Your task to perform on an android device: turn notification dots on Image 0: 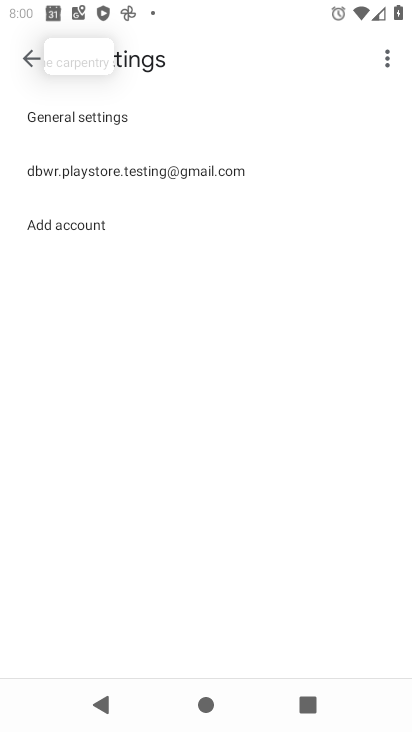
Step 0: press home button
Your task to perform on an android device: turn notification dots on Image 1: 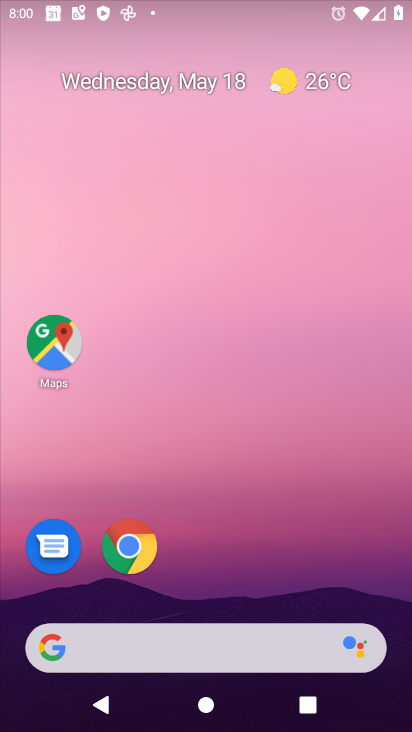
Step 1: drag from (378, 606) to (229, 22)
Your task to perform on an android device: turn notification dots on Image 2: 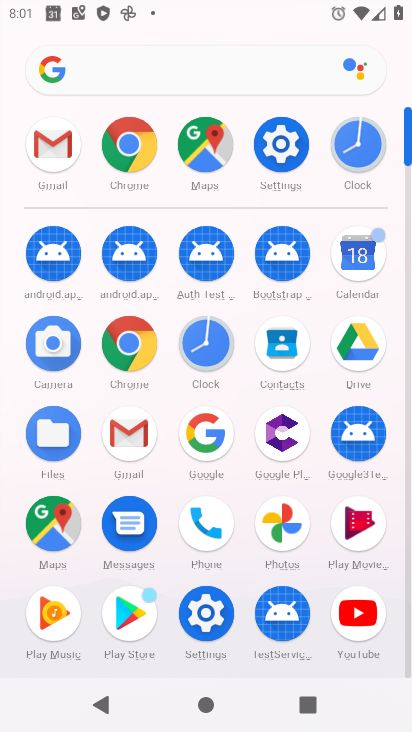
Step 2: click (269, 126)
Your task to perform on an android device: turn notification dots on Image 3: 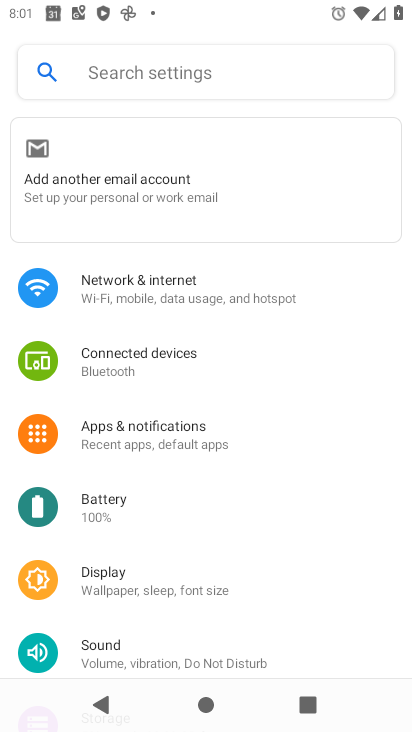
Step 3: click (221, 438)
Your task to perform on an android device: turn notification dots on Image 4: 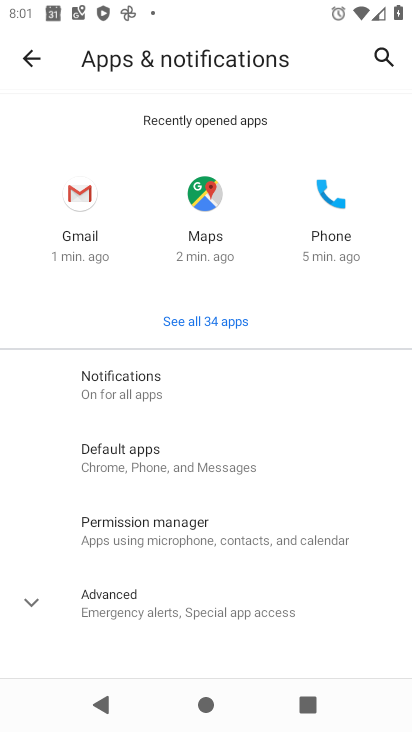
Step 4: click (151, 393)
Your task to perform on an android device: turn notification dots on Image 5: 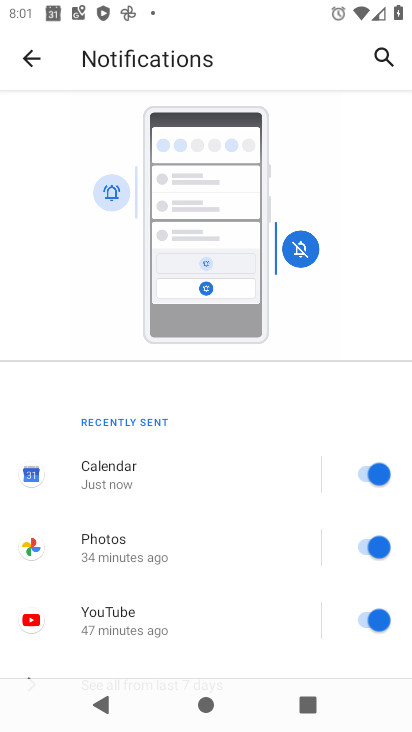
Step 5: drag from (134, 588) to (168, 111)
Your task to perform on an android device: turn notification dots on Image 6: 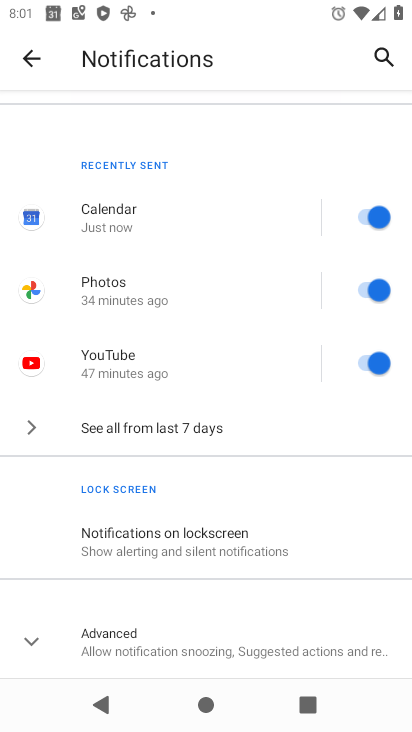
Step 6: click (179, 634)
Your task to perform on an android device: turn notification dots on Image 7: 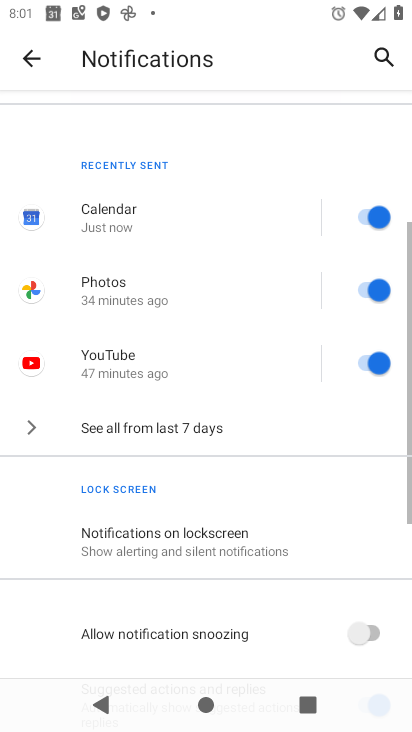
Step 7: task complete